Your task to perform on an android device: View the shopping cart on newegg.com. Search for "panasonic triple a" on newegg.com, select the first entry, and add it to the cart. Image 0: 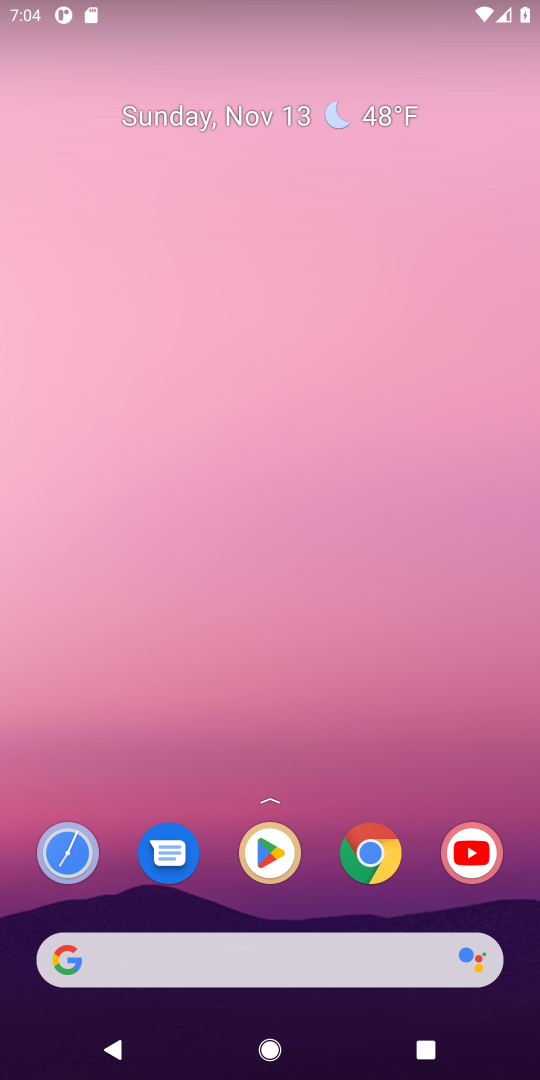
Step 0: press home button
Your task to perform on an android device: View the shopping cart on newegg.com. Search for "panasonic triple a" on newegg.com, select the first entry, and add it to the cart. Image 1: 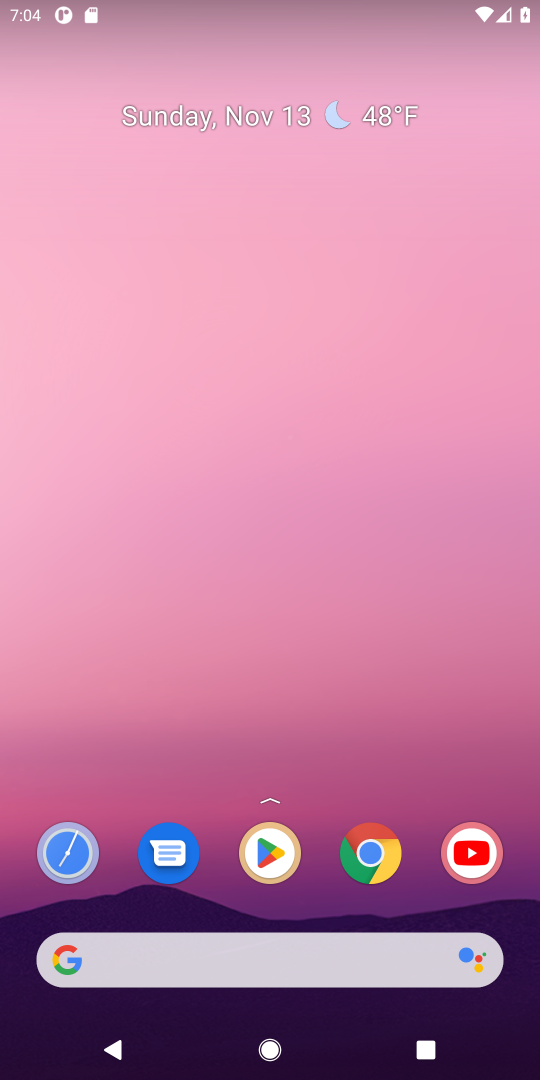
Step 1: click (103, 961)
Your task to perform on an android device: View the shopping cart on newegg.com. Search for "panasonic triple a" on newegg.com, select the first entry, and add it to the cart. Image 2: 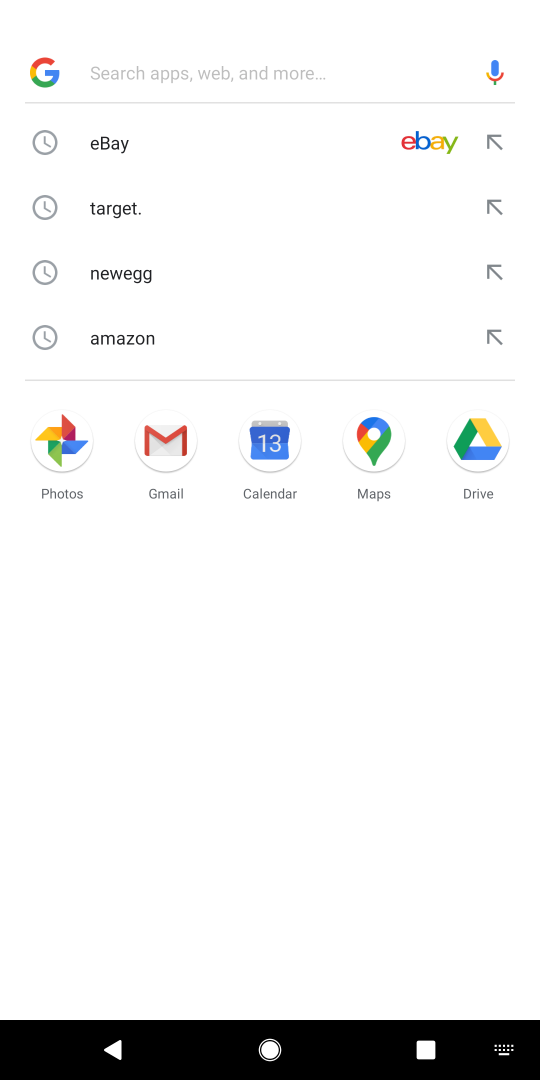
Step 2: type " newegg.com"
Your task to perform on an android device: View the shopping cart on newegg.com. Search for "panasonic triple a" on newegg.com, select the first entry, and add it to the cart. Image 3: 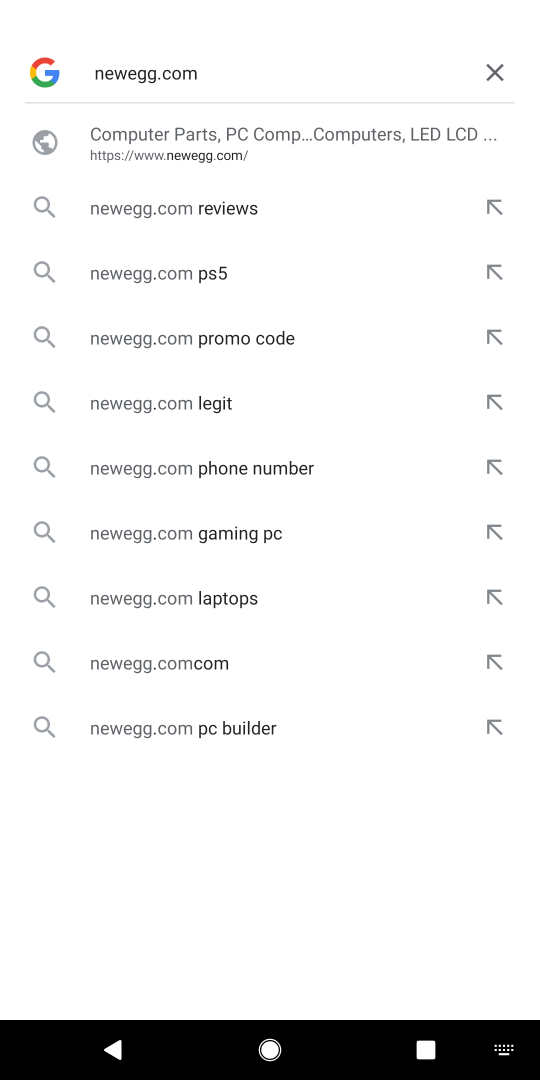
Step 3: press enter
Your task to perform on an android device: View the shopping cart on newegg.com. Search for "panasonic triple a" on newegg.com, select the first entry, and add it to the cart. Image 4: 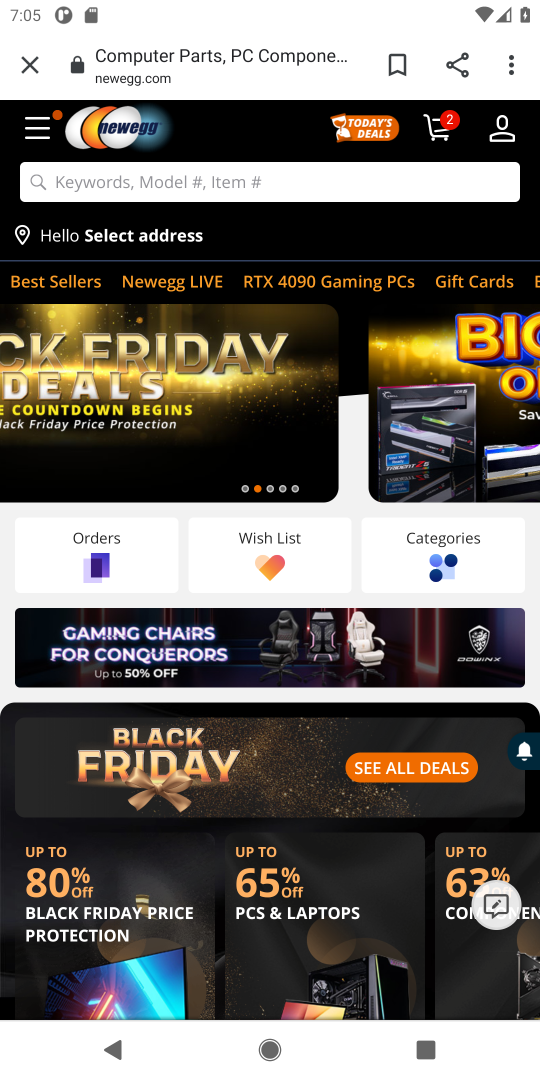
Step 4: click (443, 125)
Your task to perform on an android device: View the shopping cart on newegg.com. Search for "panasonic triple a" on newegg.com, select the first entry, and add it to the cart. Image 5: 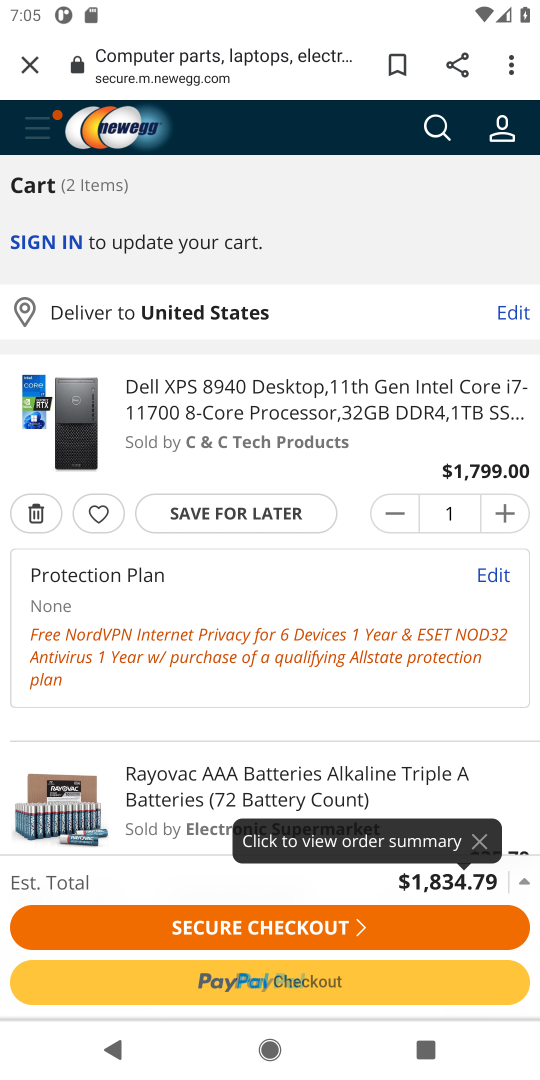
Step 5: click (436, 127)
Your task to perform on an android device: View the shopping cart on newegg.com. Search for "panasonic triple a" on newegg.com, select the first entry, and add it to the cart. Image 6: 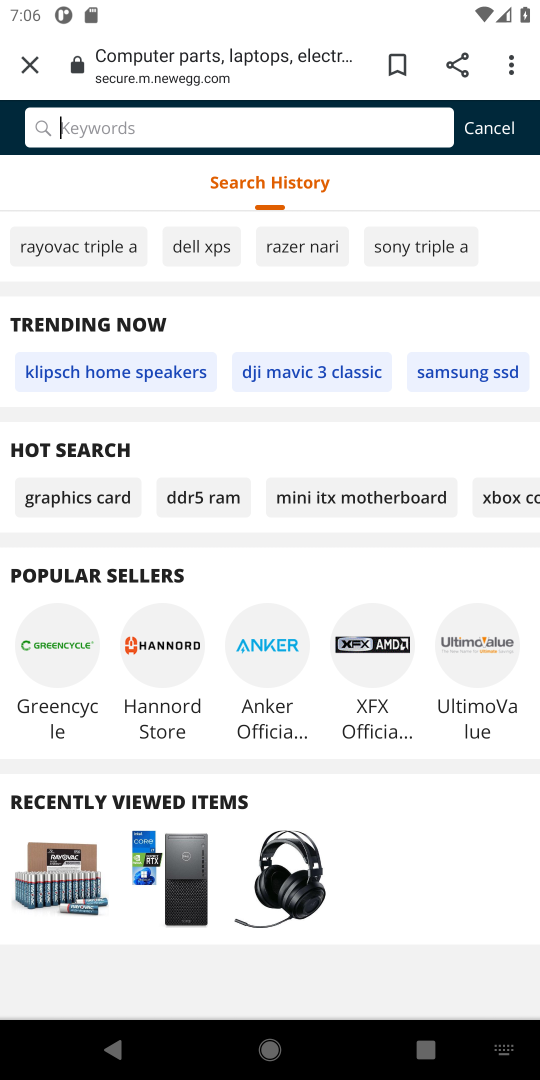
Step 6: type "panasonic triple a"
Your task to perform on an android device: View the shopping cart on newegg.com. Search for "panasonic triple a" on newegg.com, select the first entry, and add it to the cart. Image 7: 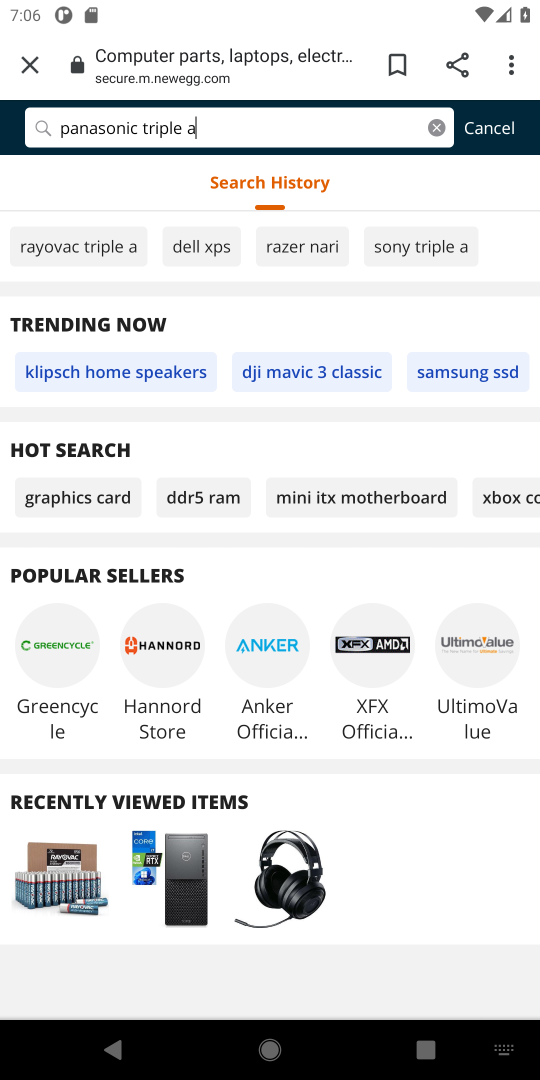
Step 7: press enter
Your task to perform on an android device: View the shopping cart on newegg.com. Search for "panasonic triple a" on newegg.com, select the first entry, and add it to the cart. Image 8: 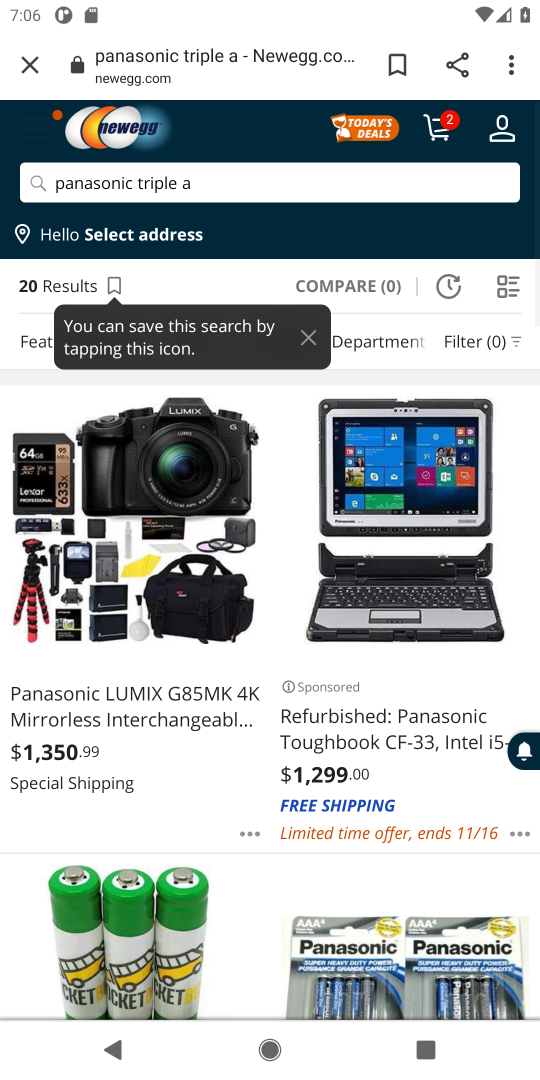
Step 8: drag from (326, 851) to (358, 480)
Your task to perform on an android device: View the shopping cart on newegg.com. Search for "panasonic triple a" on newegg.com, select the first entry, and add it to the cart. Image 9: 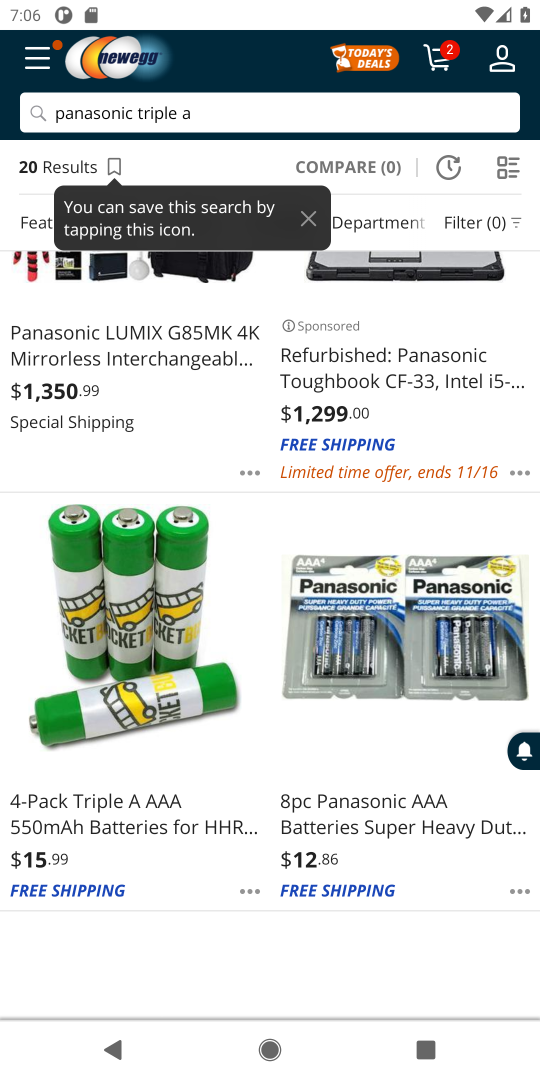
Step 9: drag from (267, 840) to (252, 438)
Your task to perform on an android device: View the shopping cart on newegg.com. Search for "panasonic triple a" on newegg.com, select the first entry, and add it to the cart. Image 10: 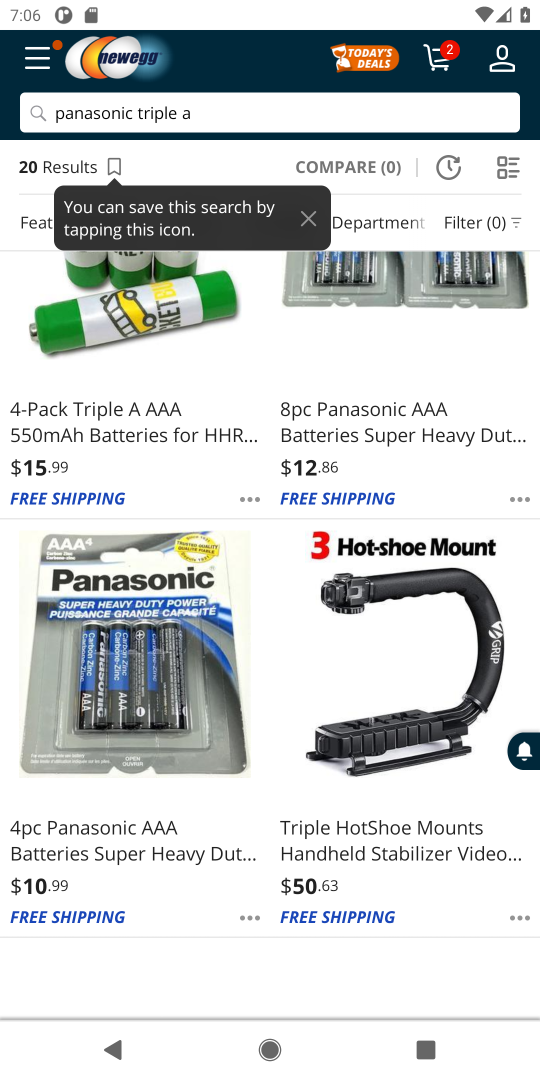
Step 10: drag from (330, 913) to (351, 603)
Your task to perform on an android device: View the shopping cart on newegg.com. Search for "panasonic triple a" on newegg.com, select the first entry, and add it to the cart. Image 11: 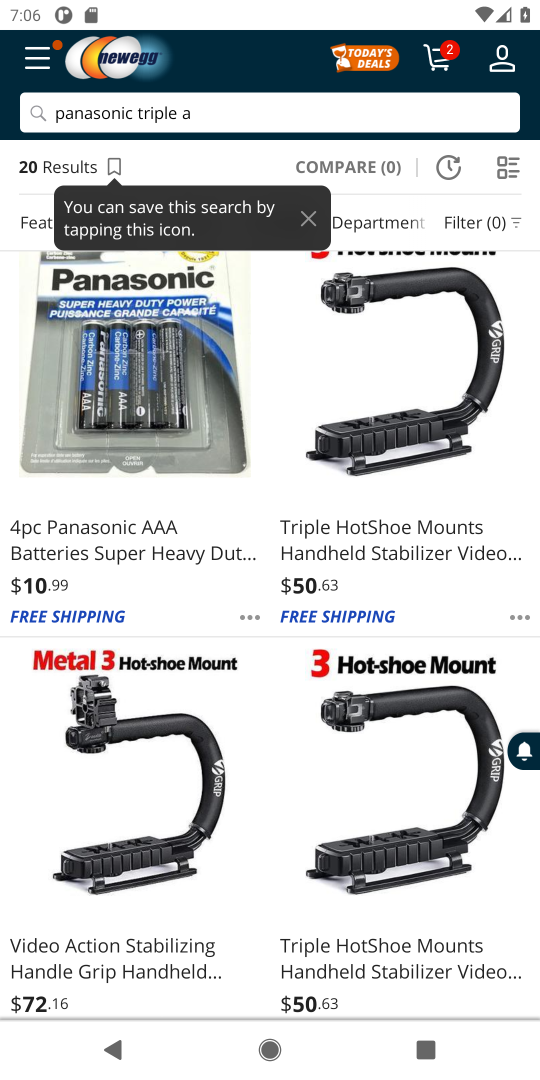
Step 11: click (118, 539)
Your task to perform on an android device: View the shopping cart on newegg.com. Search for "panasonic triple a" on newegg.com, select the first entry, and add it to the cart. Image 12: 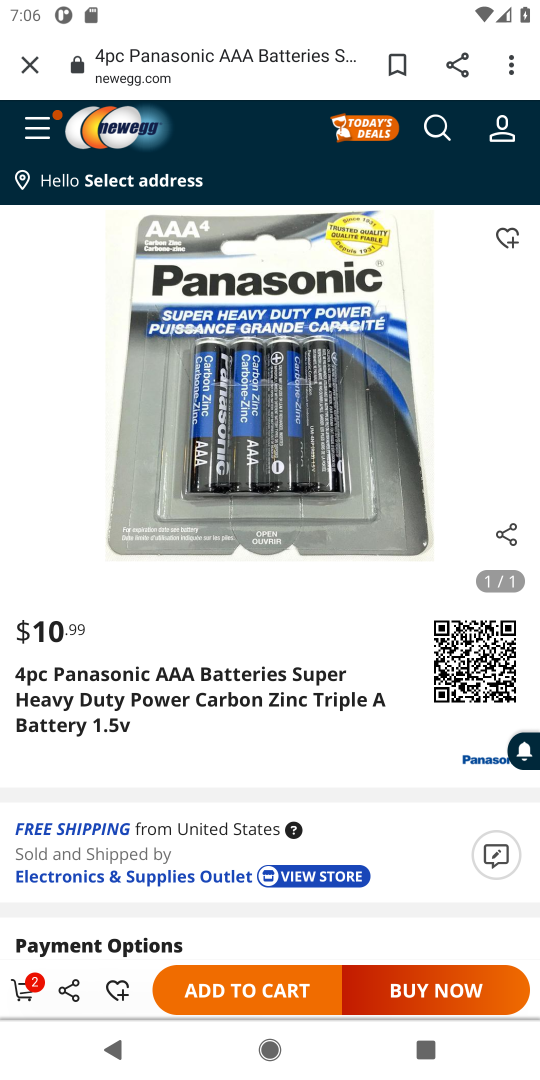
Step 12: click (219, 990)
Your task to perform on an android device: View the shopping cart on newegg.com. Search for "panasonic triple a" on newegg.com, select the first entry, and add it to the cart. Image 13: 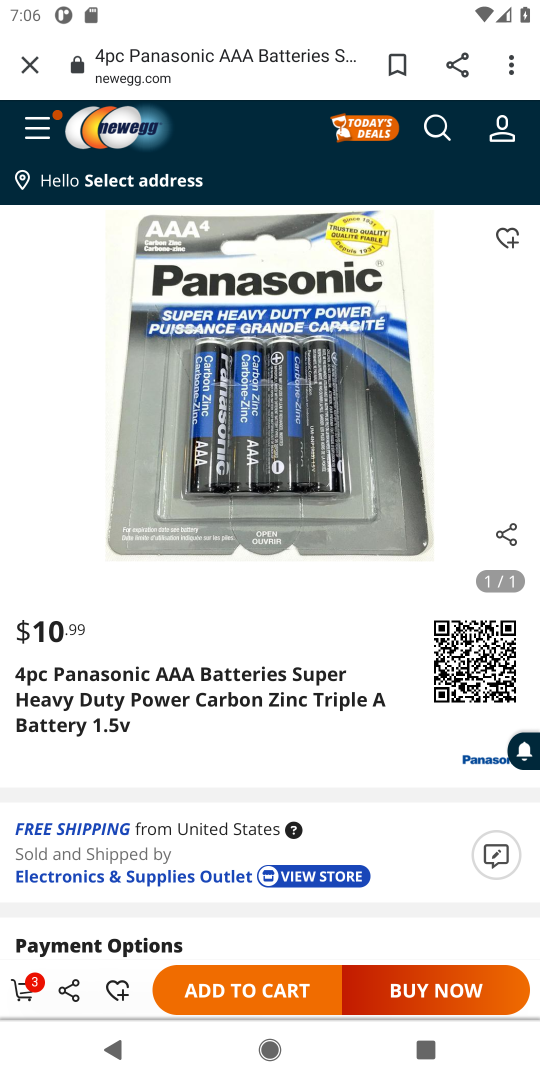
Step 13: task complete